Your task to perform on an android device: create a new album in the google photos Image 0: 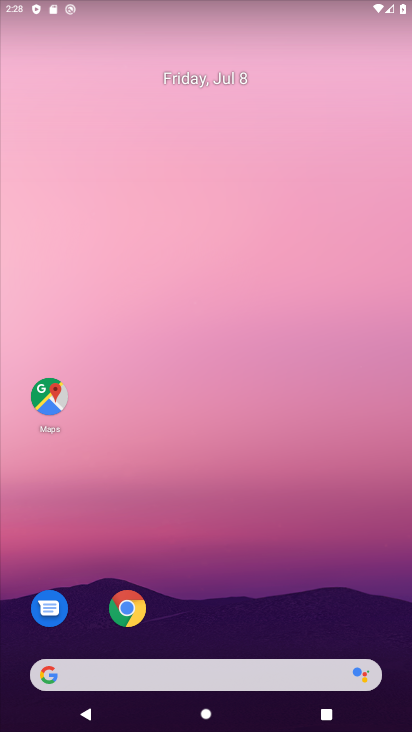
Step 0: drag from (188, 654) to (320, 121)
Your task to perform on an android device: create a new album in the google photos Image 1: 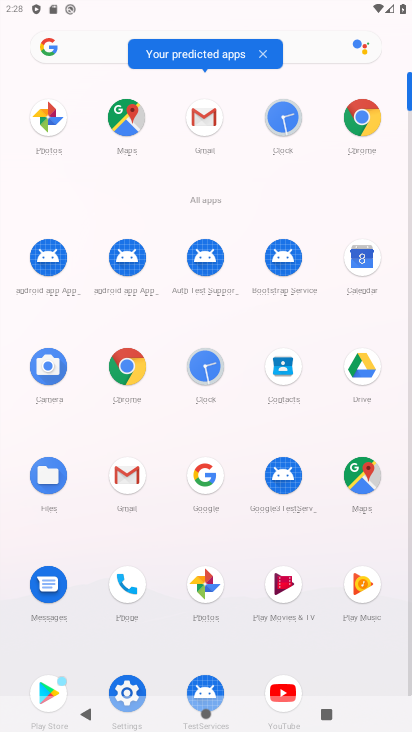
Step 1: click (189, 589)
Your task to perform on an android device: create a new album in the google photos Image 2: 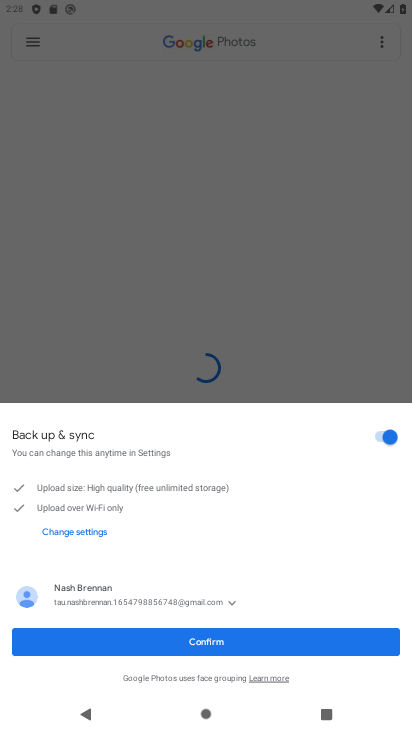
Step 2: click (234, 646)
Your task to perform on an android device: create a new album in the google photos Image 3: 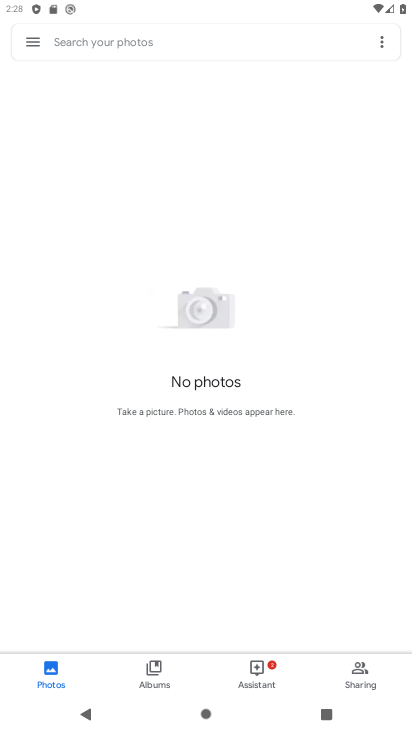
Step 3: click (383, 37)
Your task to perform on an android device: create a new album in the google photos Image 4: 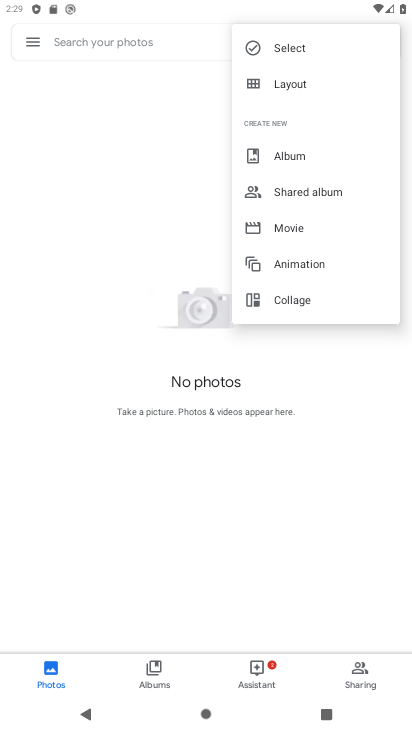
Step 4: click (312, 152)
Your task to perform on an android device: create a new album in the google photos Image 5: 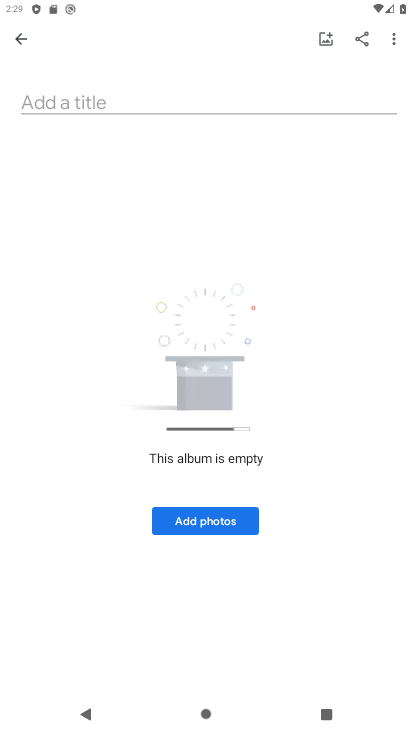
Step 5: click (137, 103)
Your task to perform on an android device: create a new album in the google photos Image 6: 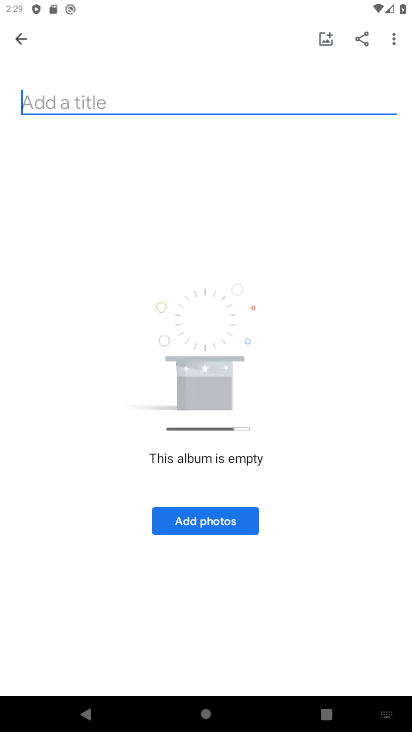
Step 6: type "ghghg"
Your task to perform on an android device: create a new album in the google photos Image 7: 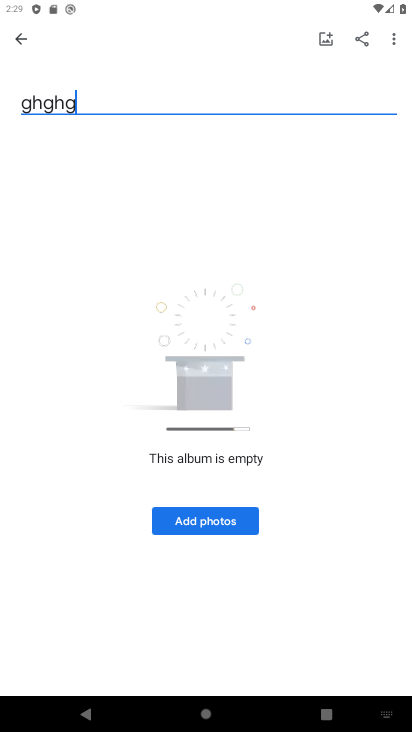
Step 7: click (390, 32)
Your task to perform on an android device: create a new album in the google photos Image 8: 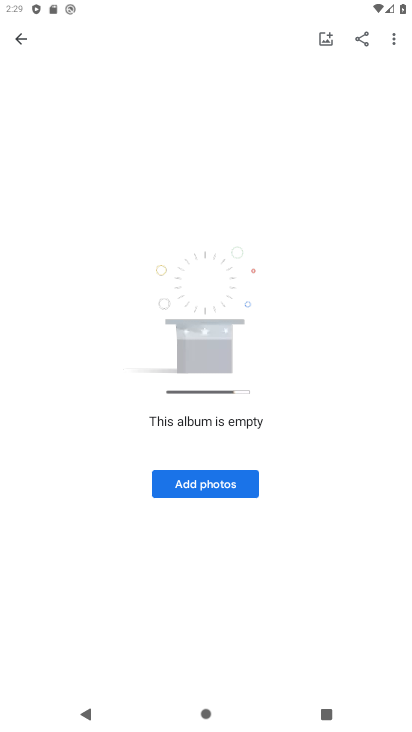
Step 8: click (397, 41)
Your task to perform on an android device: create a new album in the google photos Image 9: 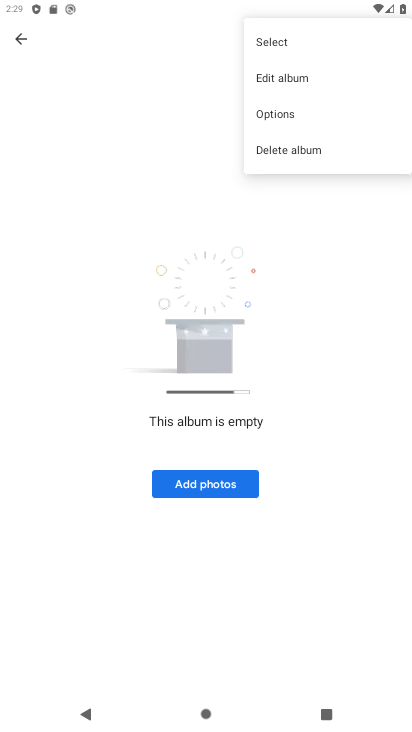
Step 9: click (310, 83)
Your task to perform on an android device: create a new album in the google photos Image 10: 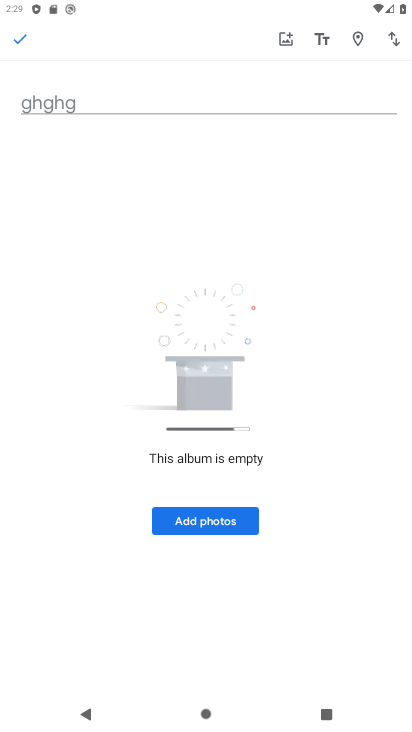
Step 10: click (27, 40)
Your task to perform on an android device: create a new album in the google photos Image 11: 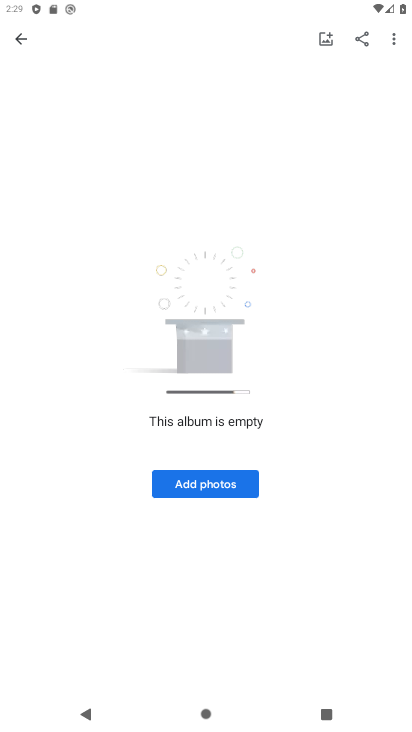
Step 11: task complete